Your task to perform on an android device: turn off improve location accuracy Image 0: 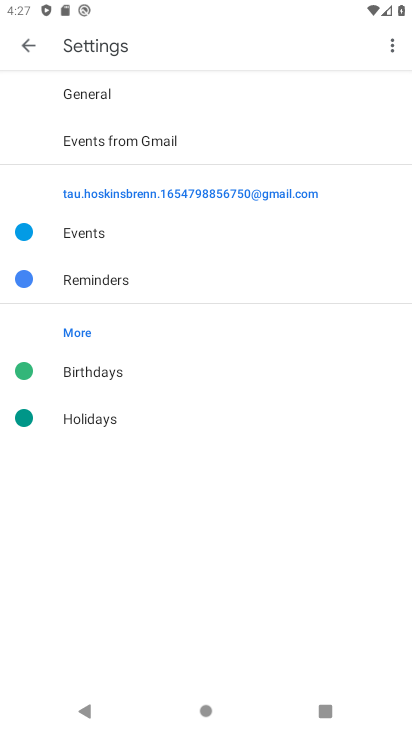
Step 0: press back button
Your task to perform on an android device: turn off improve location accuracy Image 1: 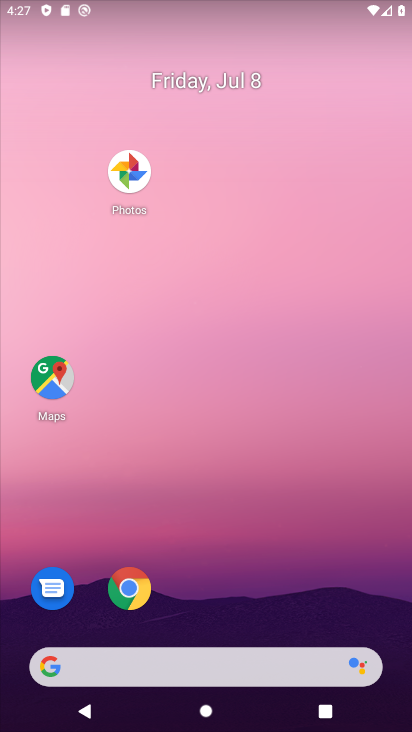
Step 1: press home button
Your task to perform on an android device: turn off improve location accuracy Image 2: 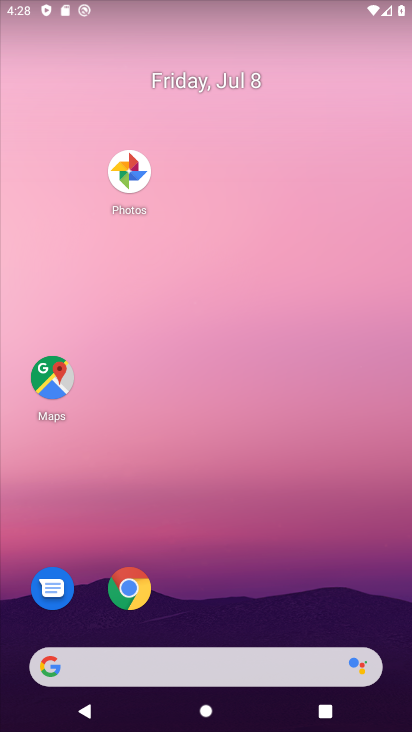
Step 2: drag from (283, 673) to (282, 196)
Your task to perform on an android device: turn off improve location accuracy Image 3: 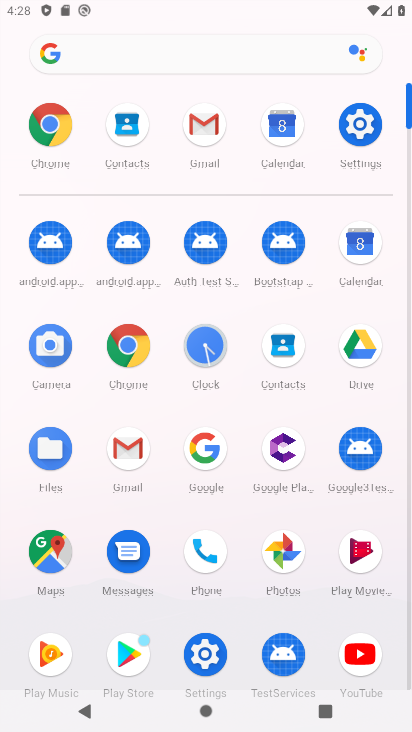
Step 3: drag from (278, 694) to (166, 332)
Your task to perform on an android device: turn off improve location accuracy Image 4: 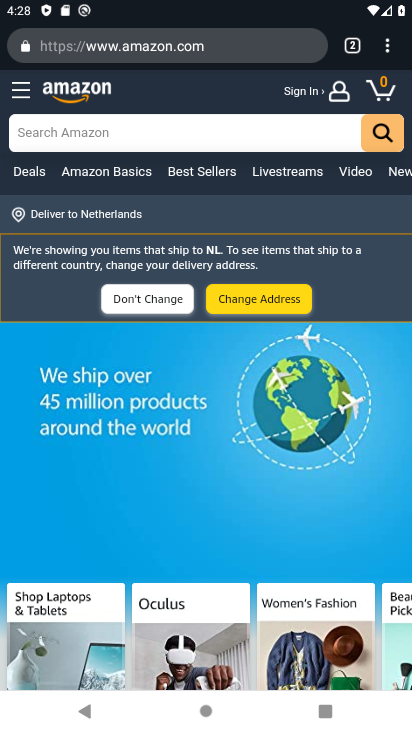
Step 4: click (390, 49)
Your task to perform on an android device: turn off improve location accuracy Image 5: 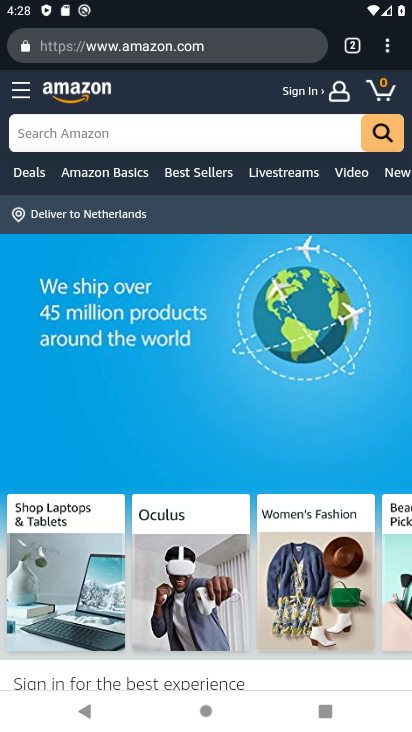
Step 5: press back button
Your task to perform on an android device: turn off improve location accuracy Image 6: 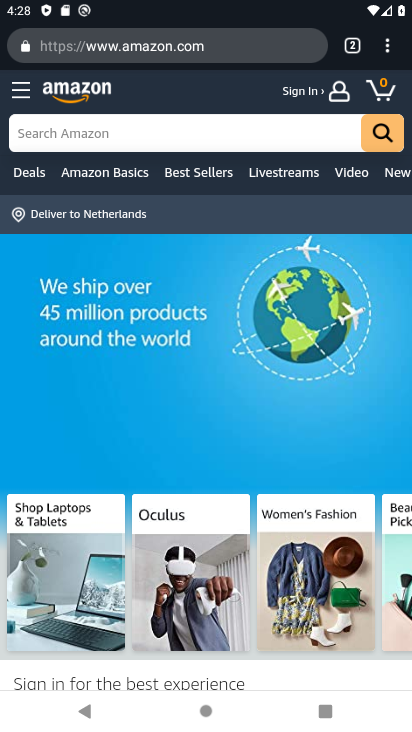
Step 6: press back button
Your task to perform on an android device: turn off improve location accuracy Image 7: 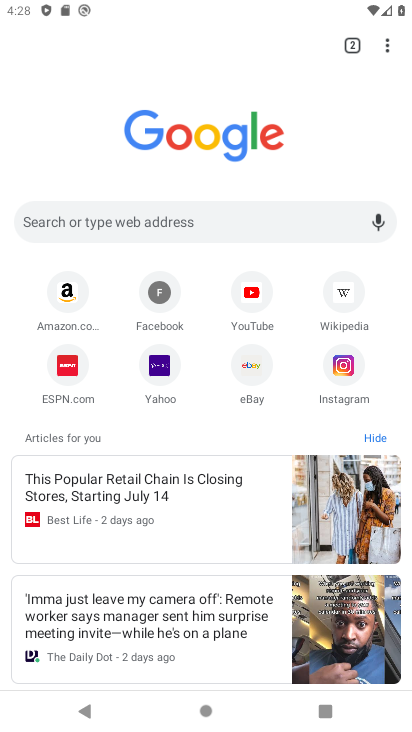
Step 7: press back button
Your task to perform on an android device: turn off improve location accuracy Image 8: 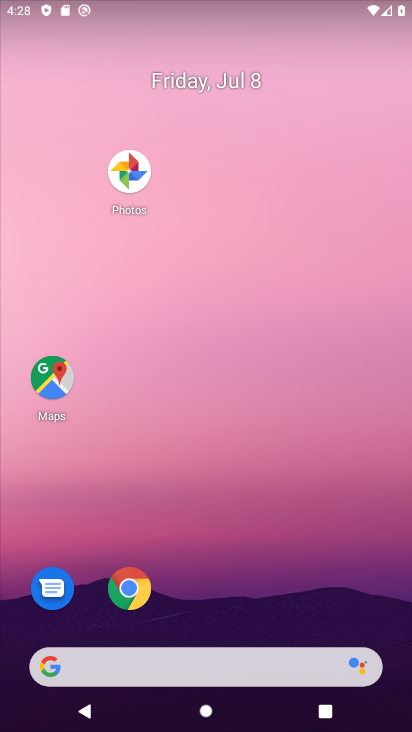
Step 8: press home button
Your task to perform on an android device: turn off improve location accuracy Image 9: 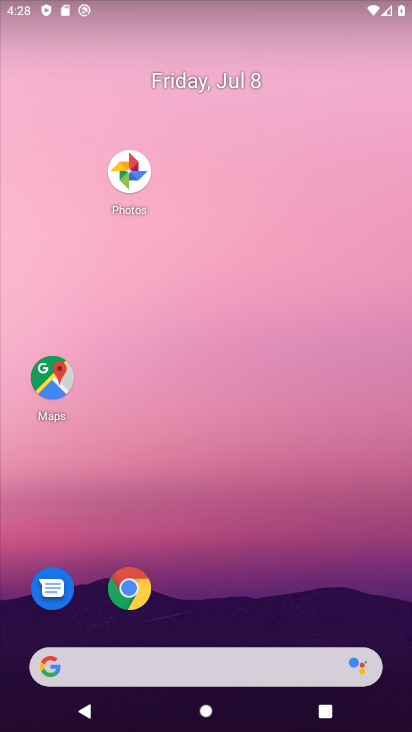
Step 9: drag from (286, 699) to (172, 237)
Your task to perform on an android device: turn off improve location accuracy Image 10: 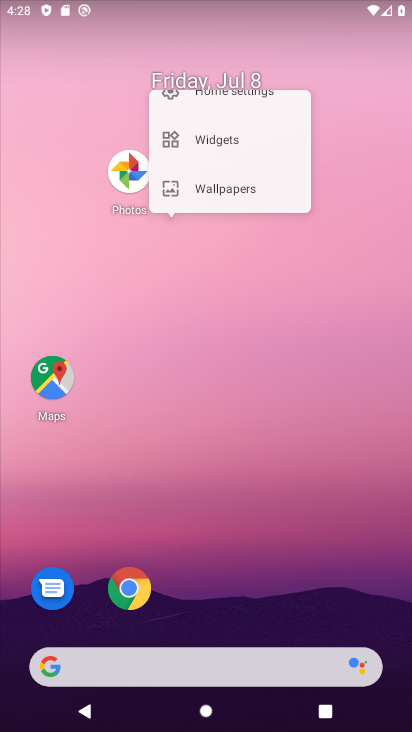
Step 10: drag from (291, 670) to (222, 209)
Your task to perform on an android device: turn off improve location accuracy Image 11: 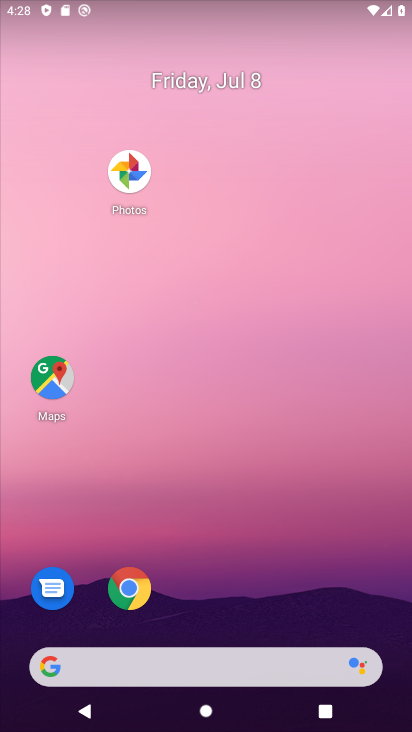
Step 11: click (263, 134)
Your task to perform on an android device: turn off improve location accuracy Image 12: 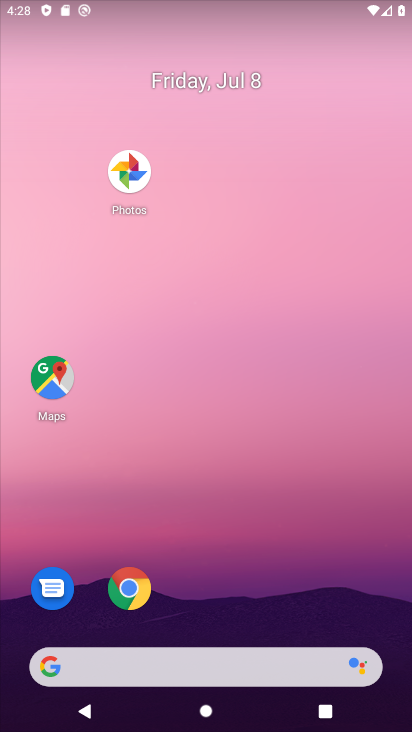
Step 12: drag from (337, 637) to (274, 63)
Your task to perform on an android device: turn off improve location accuracy Image 13: 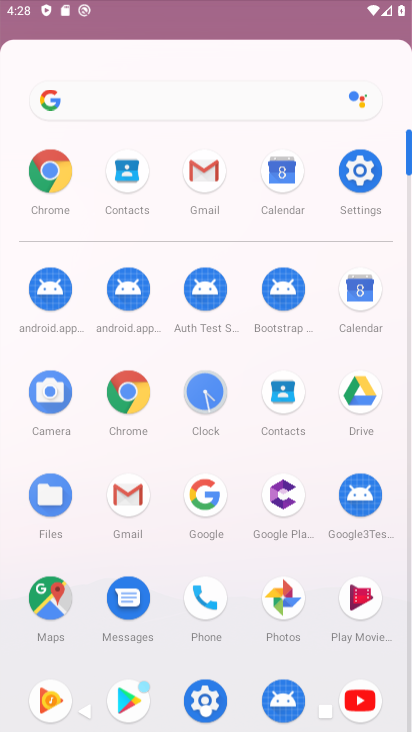
Step 13: drag from (234, 462) to (226, 157)
Your task to perform on an android device: turn off improve location accuracy Image 14: 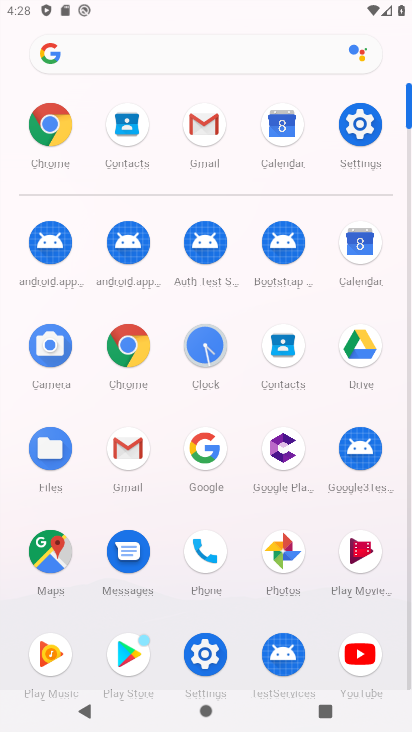
Step 14: click (360, 125)
Your task to perform on an android device: turn off improve location accuracy Image 15: 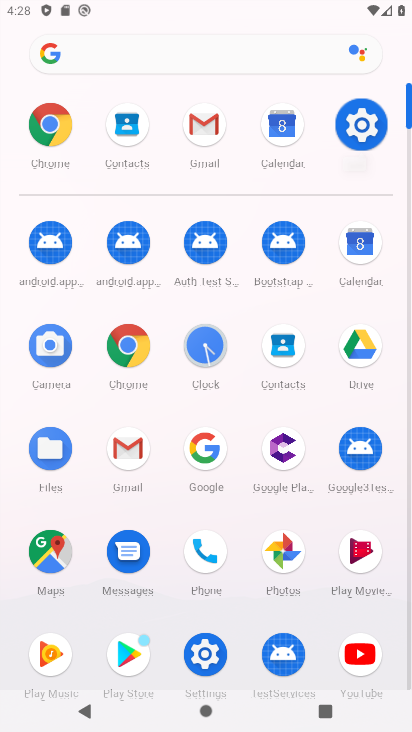
Step 15: click (360, 125)
Your task to perform on an android device: turn off improve location accuracy Image 16: 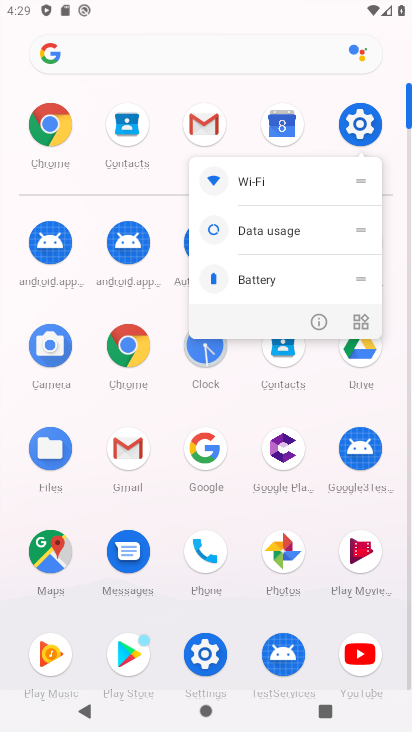
Step 16: click (360, 125)
Your task to perform on an android device: turn off improve location accuracy Image 17: 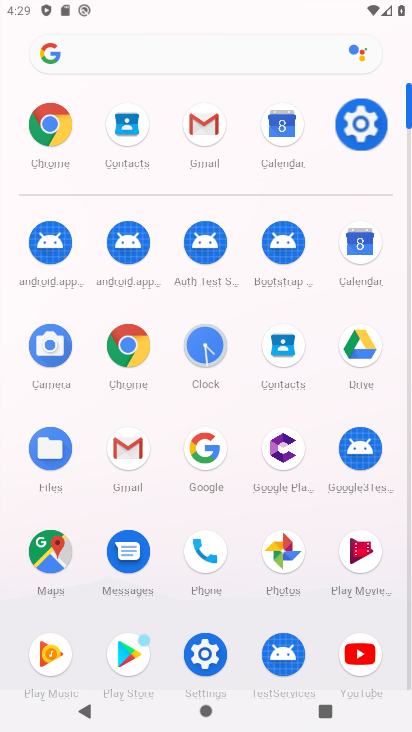
Step 17: click (363, 125)
Your task to perform on an android device: turn off improve location accuracy Image 18: 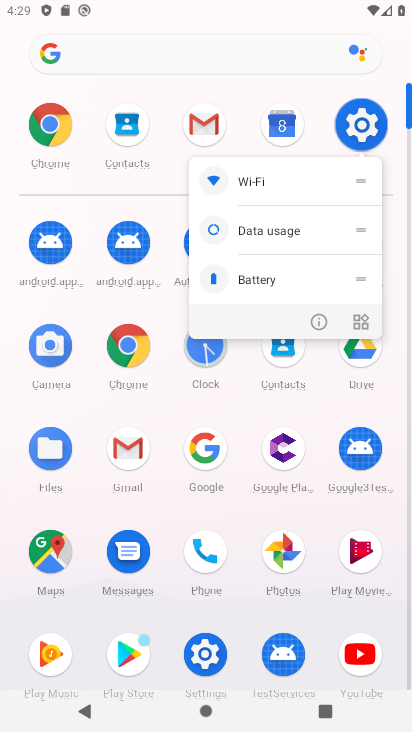
Step 18: click (365, 124)
Your task to perform on an android device: turn off improve location accuracy Image 19: 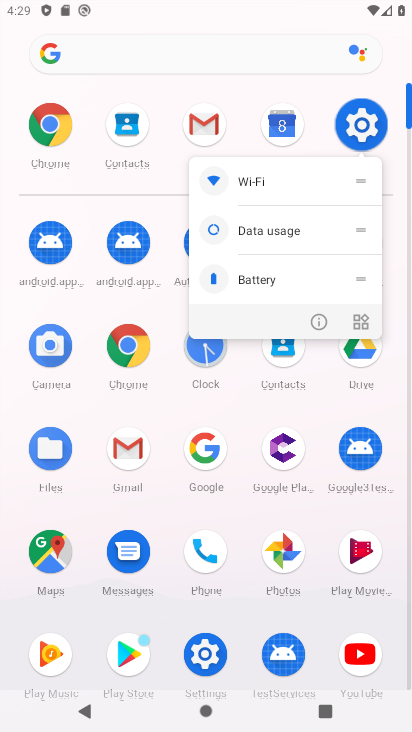
Step 19: click (369, 124)
Your task to perform on an android device: turn off improve location accuracy Image 20: 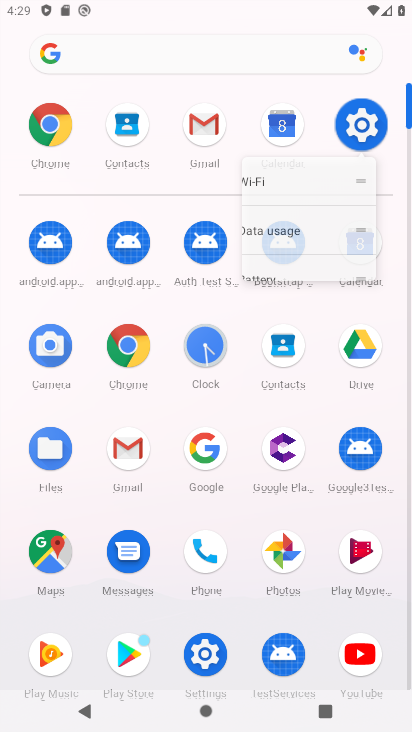
Step 20: click (369, 127)
Your task to perform on an android device: turn off improve location accuracy Image 21: 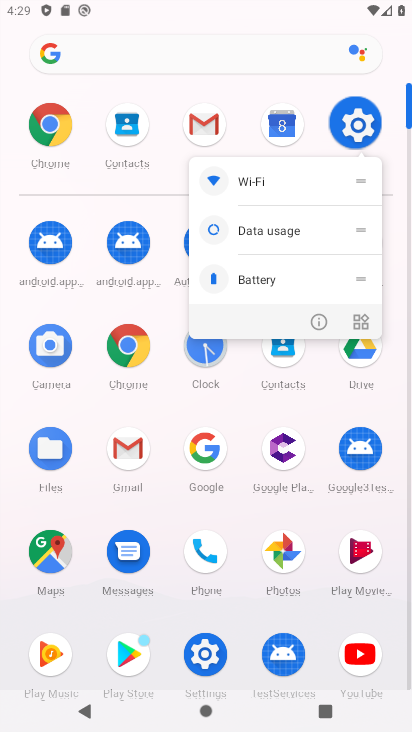
Step 21: click (363, 122)
Your task to perform on an android device: turn off improve location accuracy Image 22: 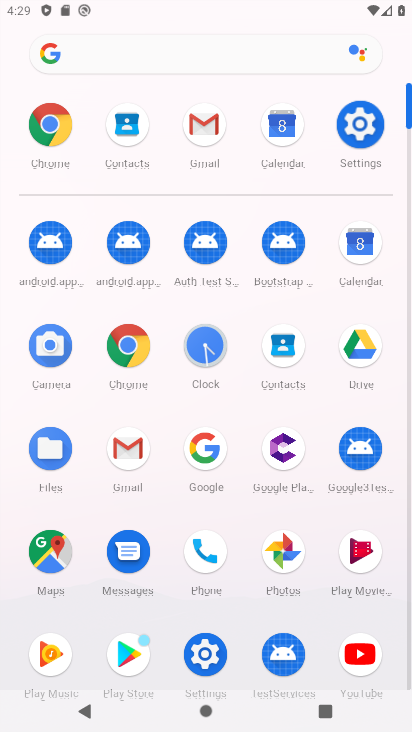
Step 22: click (363, 123)
Your task to perform on an android device: turn off improve location accuracy Image 23: 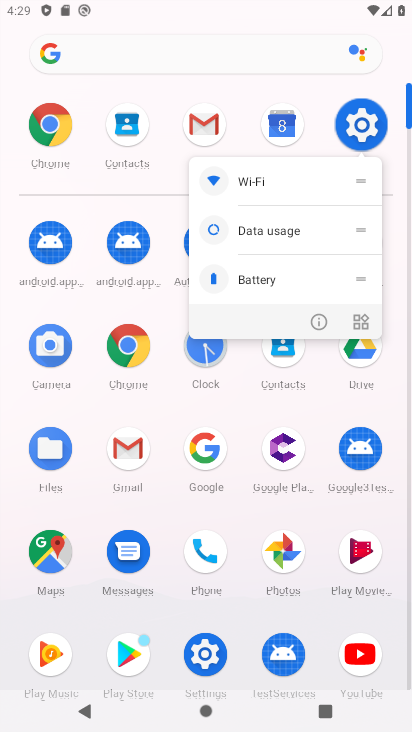
Step 23: click (361, 124)
Your task to perform on an android device: turn off improve location accuracy Image 24: 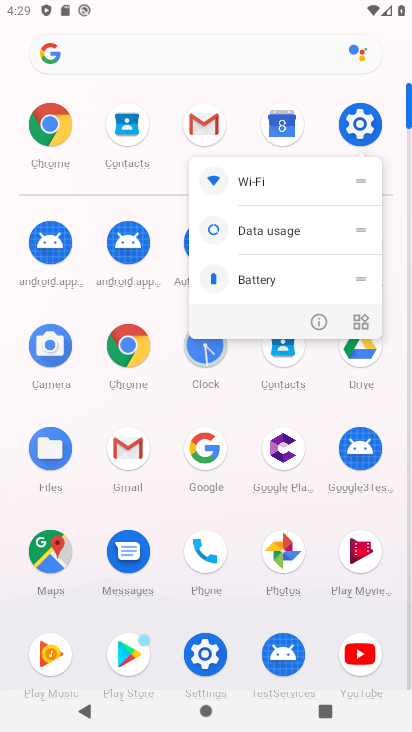
Step 24: drag from (367, 95) to (323, 254)
Your task to perform on an android device: turn off improve location accuracy Image 25: 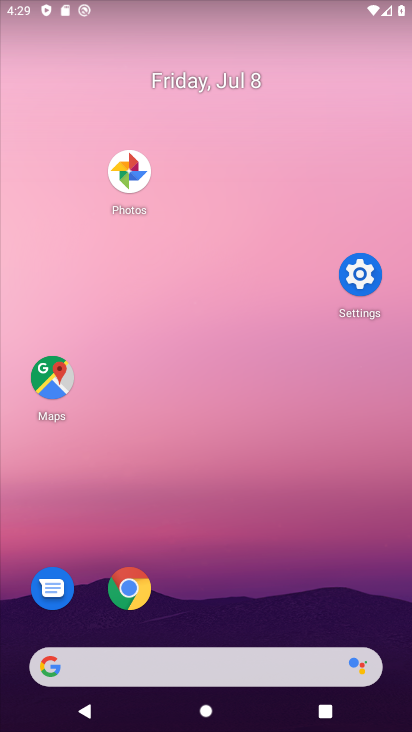
Step 25: press back button
Your task to perform on an android device: turn off improve location accuracy Image 26: 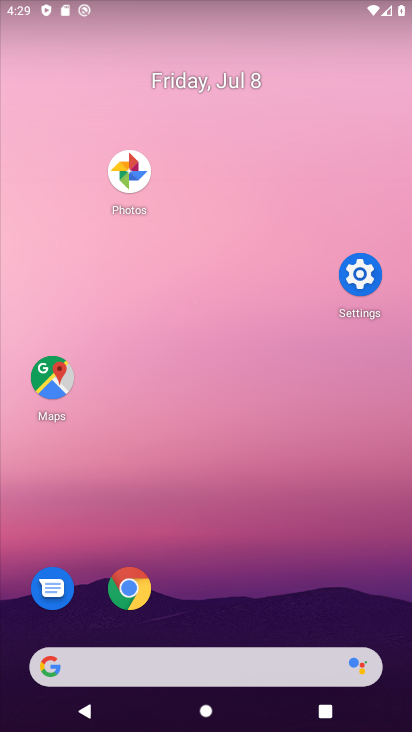
Step 26: drag from (298, 672) to (260, 157)
Your task to perform on an android device: turn off improve location accuracy Image 27: 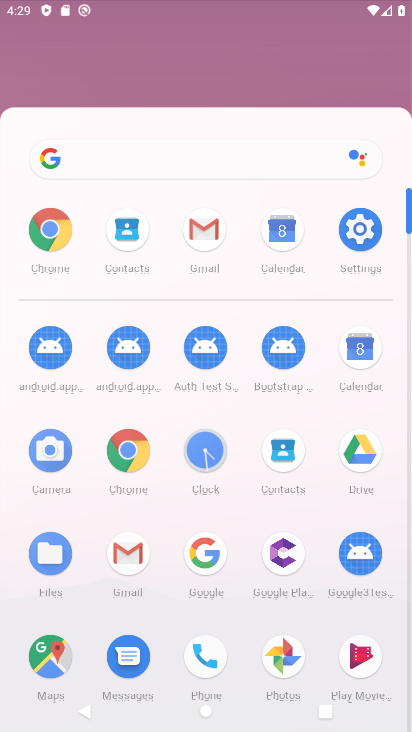
Step 27: drag from (275, 643) to (264, 70)
Your task to perform on an android device: turn off improve location accuracy Image 28: 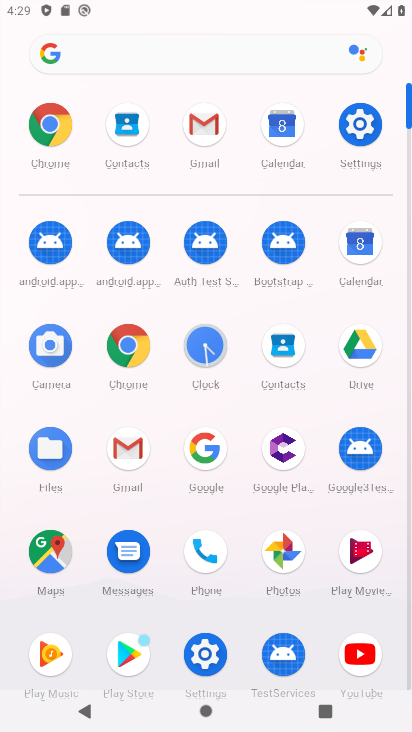
Step 28: drag from (289, 523) to (269, 10)
Your task to perform on an android device: turn off improve location accuracy Image 29: 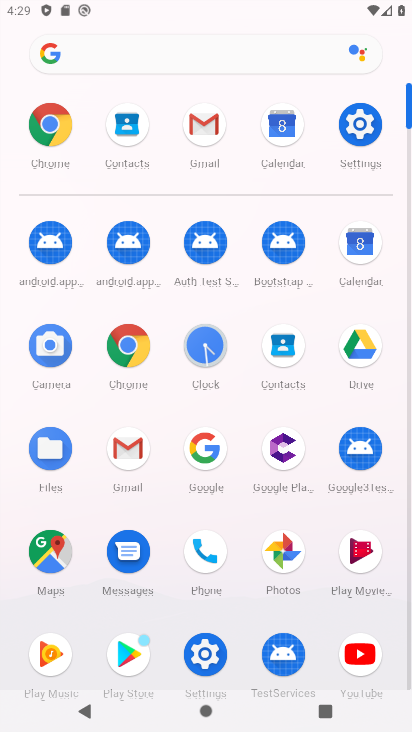
Step 29: click (218, 657)
Your task to perform on an android device: turn off improve location accuracy Image 30: 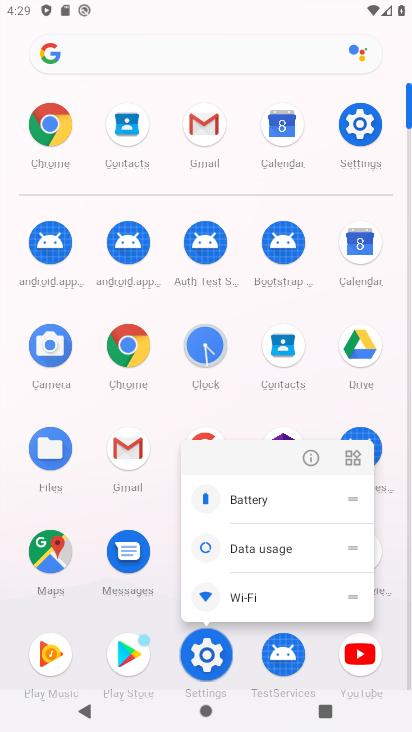
Step 30: click (218, 657)
Your task to perform on an android device: turn off improve location accuracy Image 31: 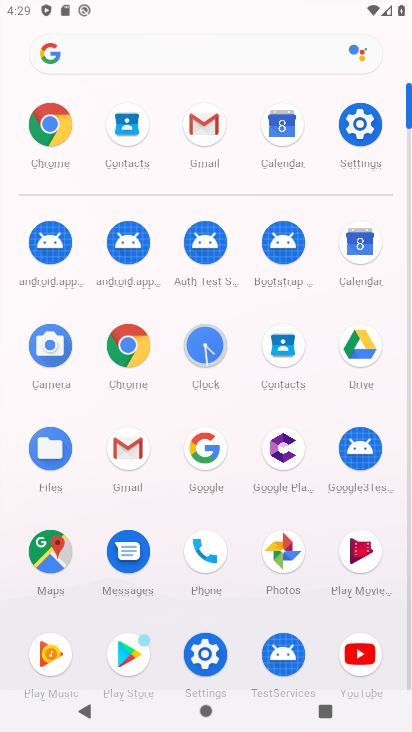
Step 31: click (218, 657)
Your task to perform on an android device: turn off improve location accuracy Image 32: 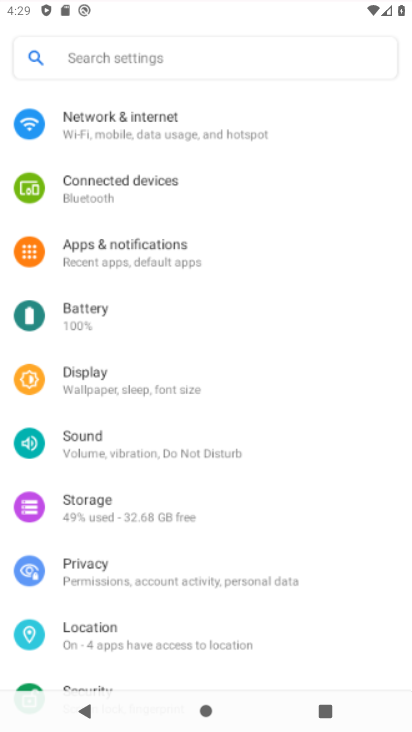
Step 32: click (218, 654)
Your task to perform on an android device: turn off improve location accuracy Image 33: 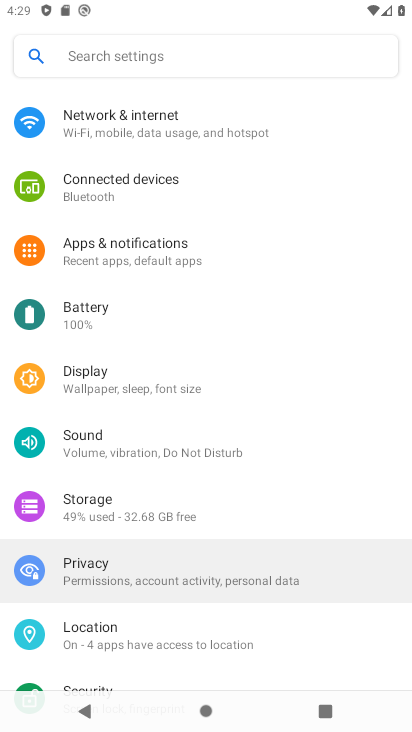
Step 33: click (220, 649)
Your task to perform on an android device: turn off improve location accuracy Image 34: 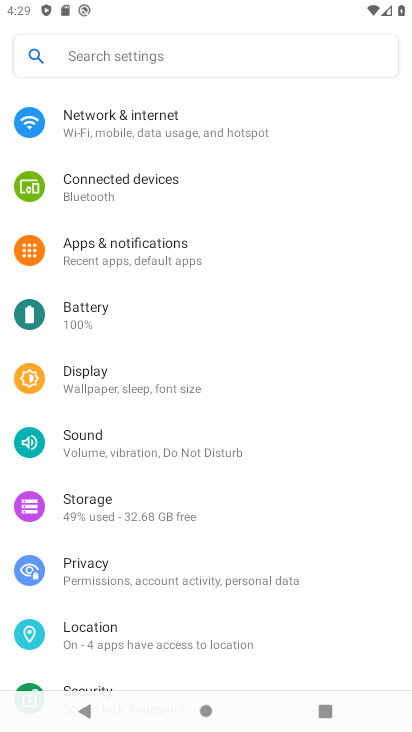
Step 34: drag from (140, 567) to (180, 107)
Your task to perform on an android device: turn off improve location accuracy Image 35: 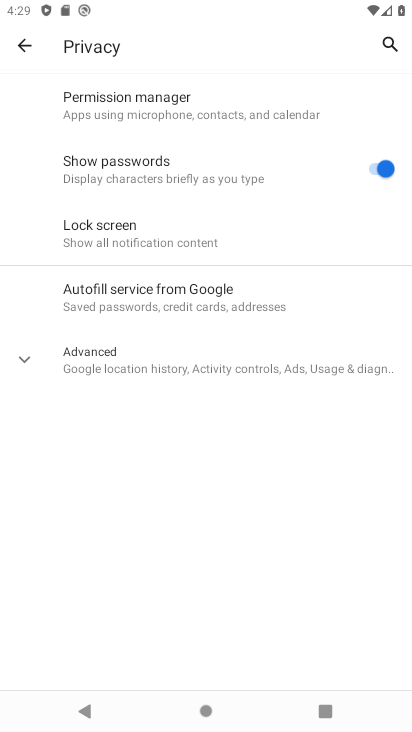
Step 35: drag from (168, 414) to (168, 106)
Your task to perform on an android device: turn off improve location accuracy Image 36: 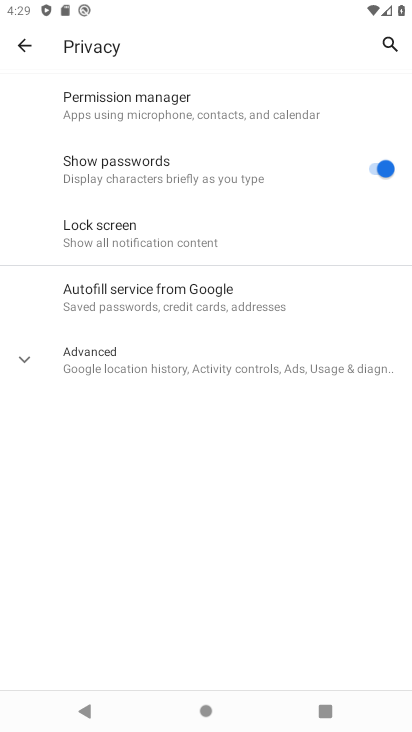
Step 36: click (27, 47)
Your task to perform on an android device: turn off improve location accuracy Image 37: 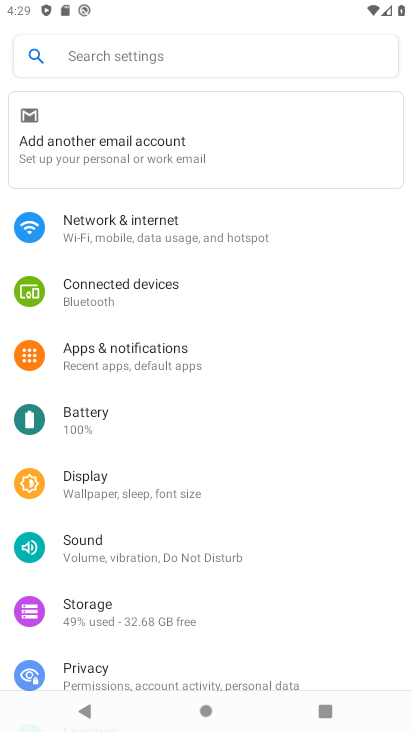
Step 37: drag from (158, 582) to (204, 142)
Your task to perform on an android device: turn off improve location accuracy Image 38: 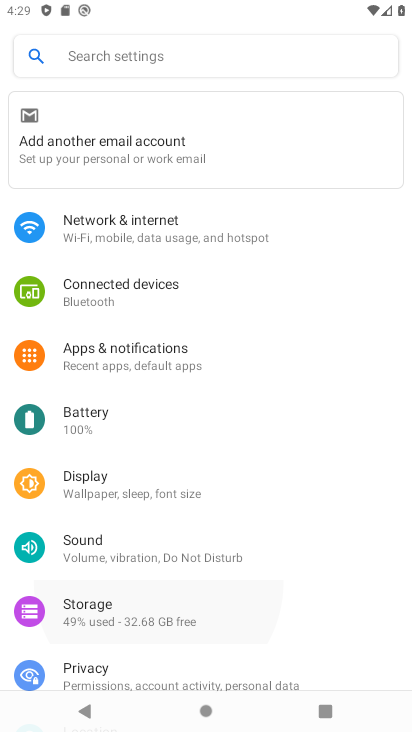
Step 38: drag from (200, 657) to (191, 234)
Your task to perform on an android device: turn off improve location accuracy Image 39: 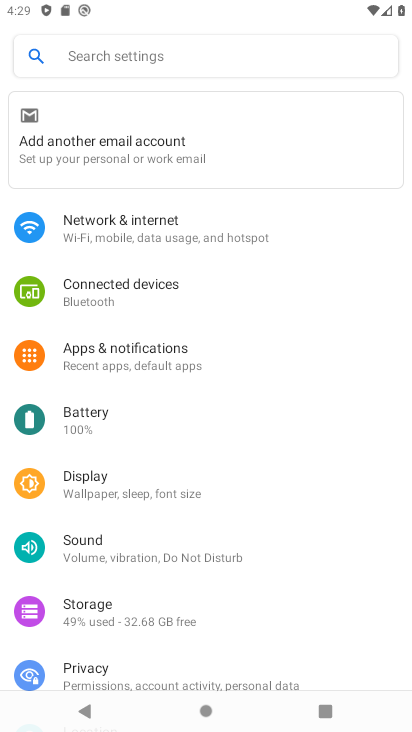
Step 39: drag from (75, 651) to (86, 186)
Your task to perform on an android device: turn off improve location accuracy Image 40: 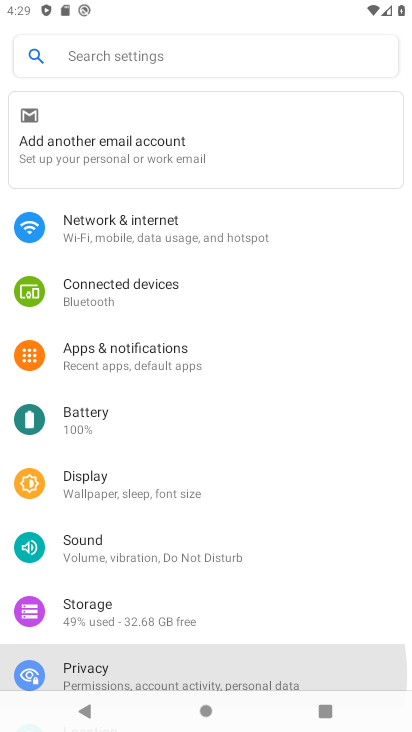
Step 40: drag from (190, 631) to (216, 166)
Your task to perform on an android device: turn off improve location accuracy Image 41: 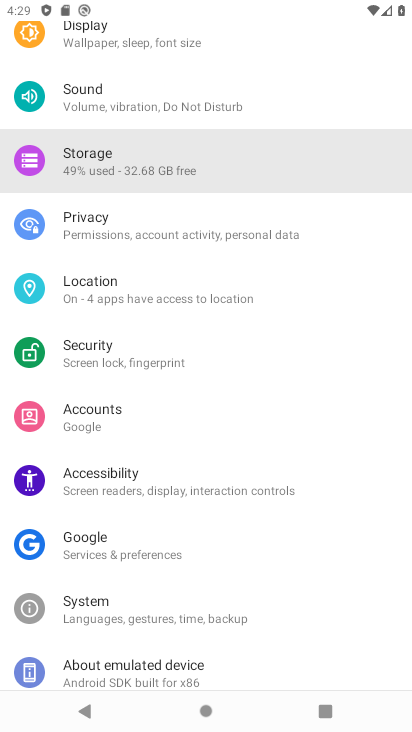
Step 41: drag from (167, 581) to (124, 163)
Your task to perform on an android device: turn off improve location accuracy Image 42: 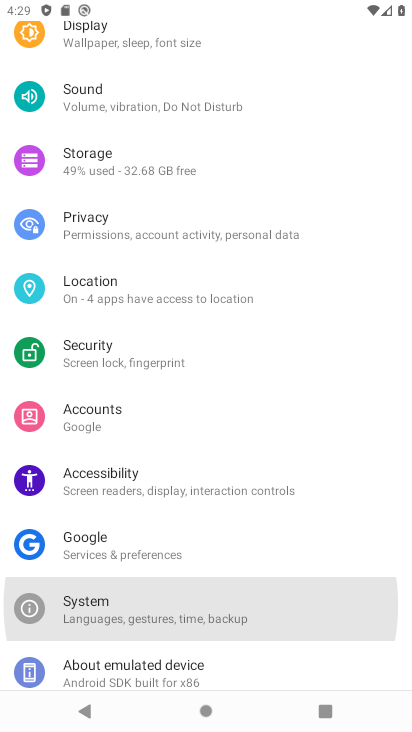
Step 42: drag from (162, 520) to (122, 4)
Your task to perform on an android device: turn off improve location accuracy Image 43: 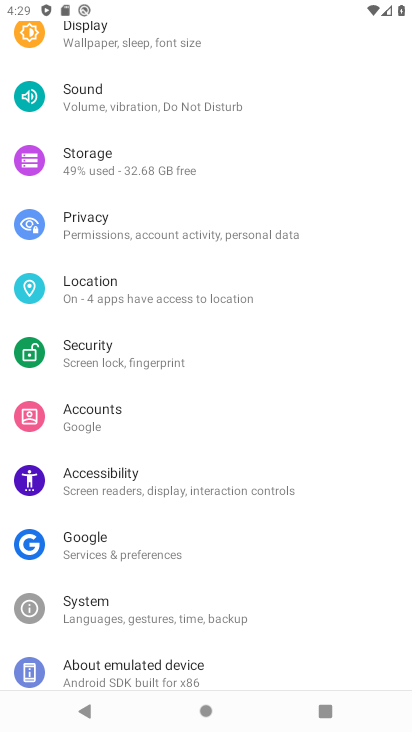
Step 43: click (100, 285)
Your task to perform on an android device: turn off improve location accuracy Image 44: 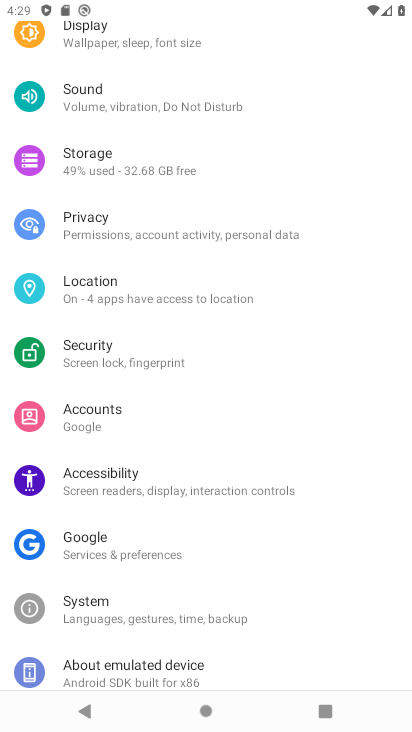
Step 44: click (100, 285)
Your task to perform on an android device: turn off improve location accuracy Image 45: 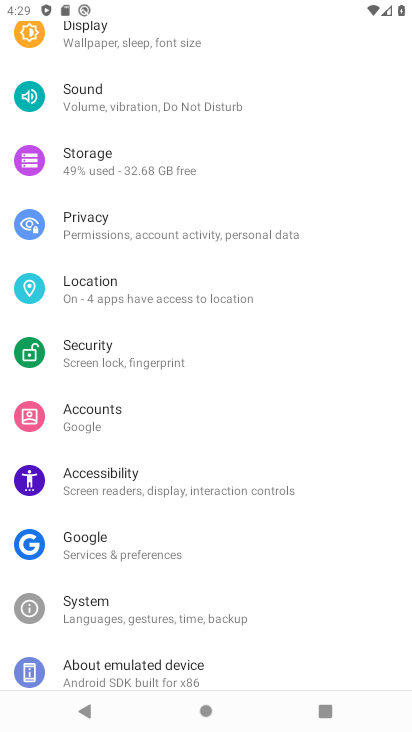
Step 45: click (109, 288)
Your task to perform on an android device: turn off improve location accuracy Image 46: 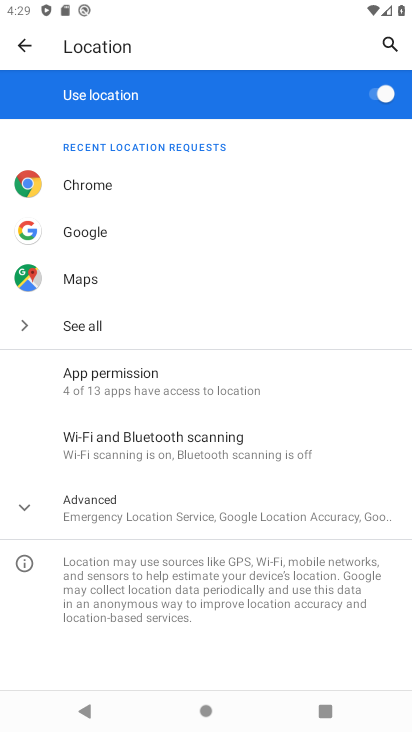
Step 46: click (93, 507)
Your task to perform on an android device: turn off improve location accuracy Image 47: 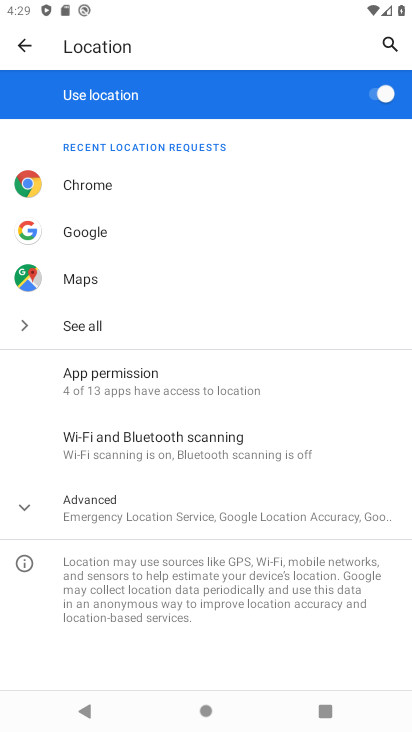
Step 47: click (113, 483)
Your task to perform on an android device: turn off improve location accuracy Image 48: 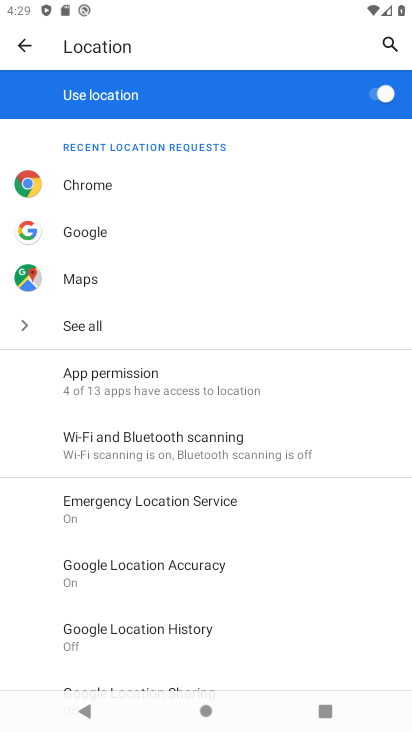
Step 48: click (149, 570)
Your task to perform on an android device: turn off improve location accuracy Image 49: 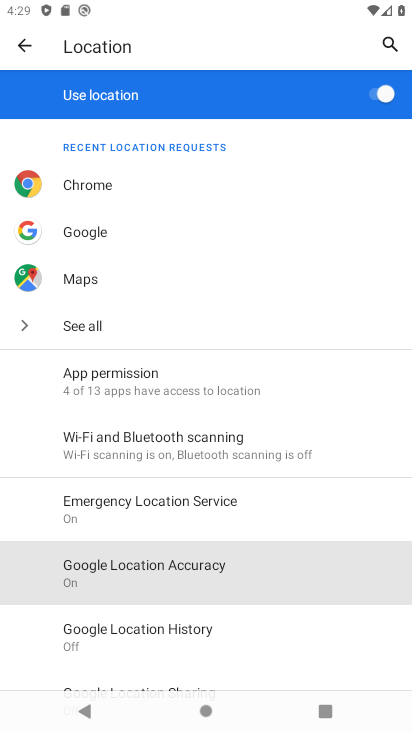
Step 49: click (149, 570)
Your task to perform on an android device: turn off improve location accuracy Image 50: 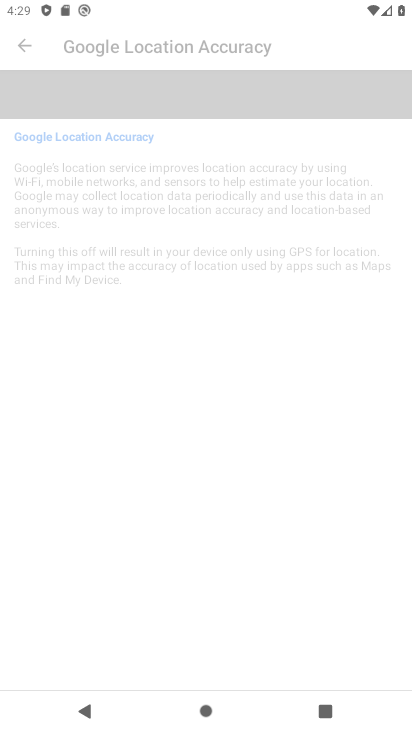
Step 50: click (149, 570)
Your task to perform on an android device: turn off improve location accuracy Image 51: 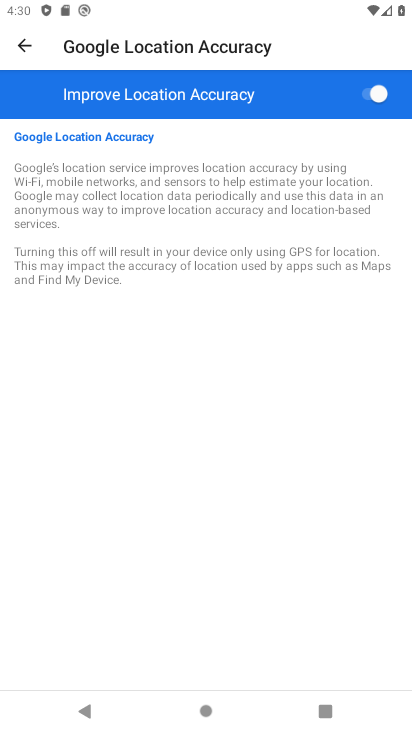
Step 51: click (375, 95)
Your task to perform on an android device: turn off improve location accuracy Image 52: 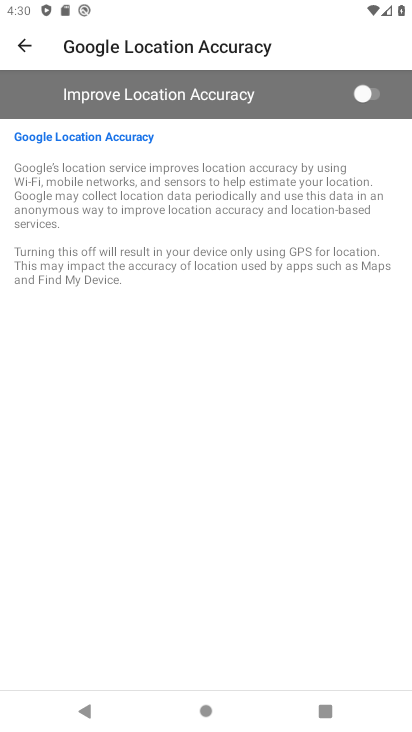
Step 52: task complete